Your task to perform on an android device: Go to battery settings Image 0: 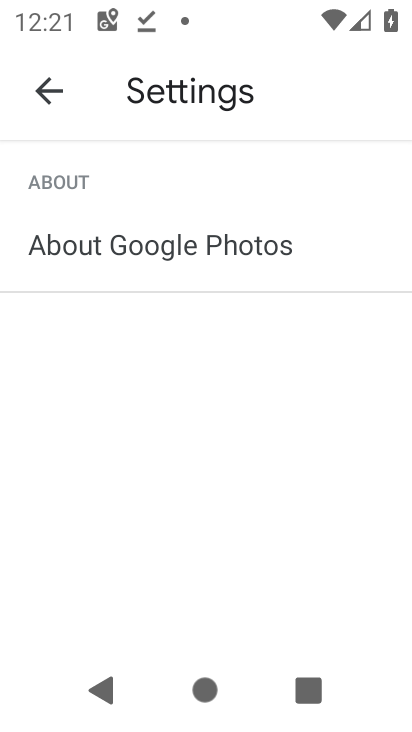
Step 0: press home button
Your task to perform on an android device: Go to battery settings Image 1: 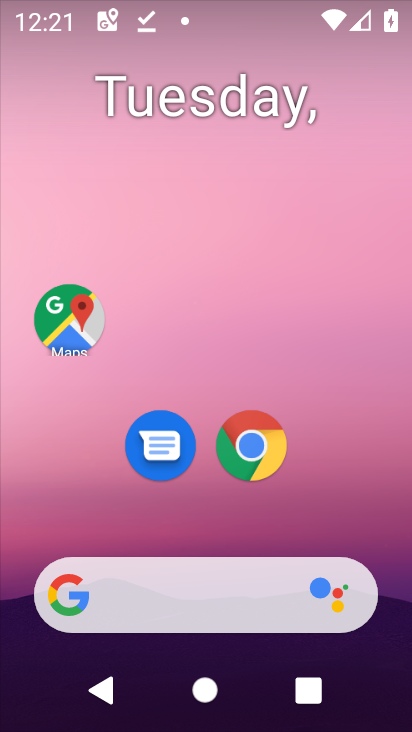
Step 1: drag from (320, 503) to (198, 15)
Your task to perform on an android device: Go to battery settings Image 2: 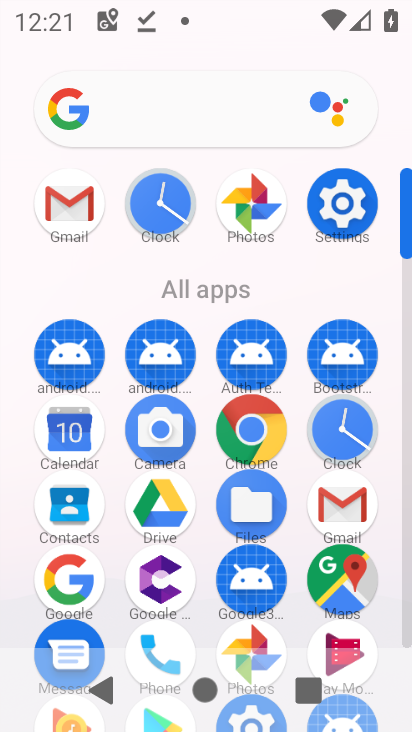
Step 2: click (338, 200)
Your task to perform on an android device: Go to battery settings Image 3: 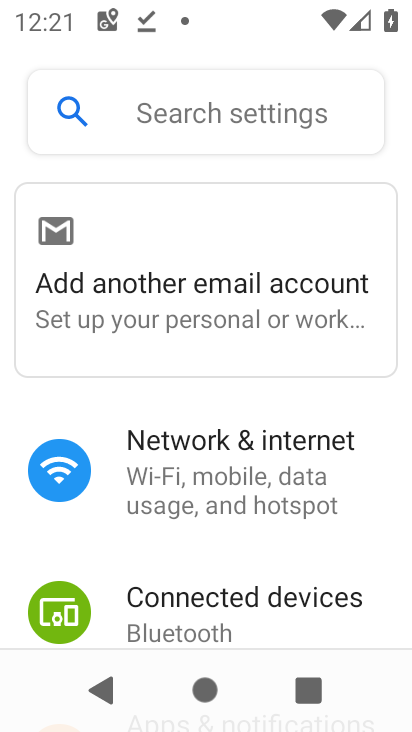
Step 3: drag from (264, 547) to (194, 108)
Your task to perform on an android device: Go to battery settings Image 4: 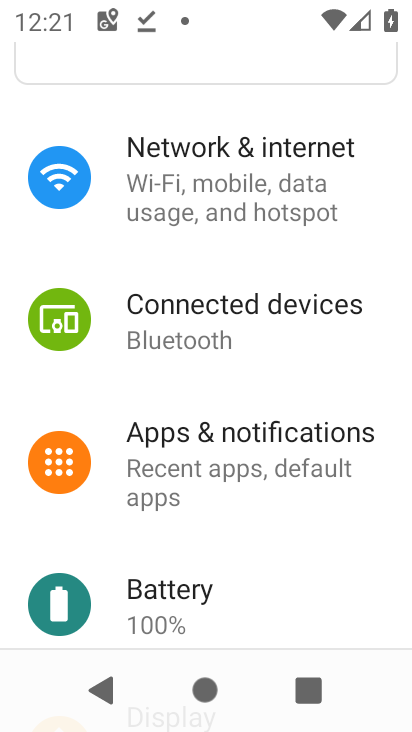
Step 4: drag from (224, 558) to (209, 189)
Your task to perform on an android device: Go to battery settings Image 5: 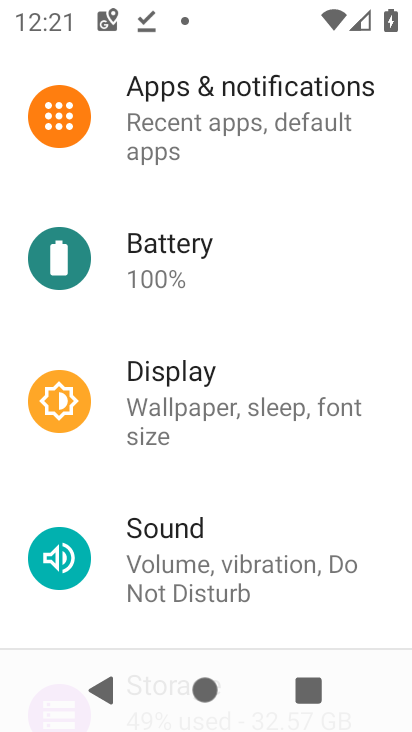
Step 5: click (149, 240)
Your task to perform on an android device: Go to battery settings Image 6: 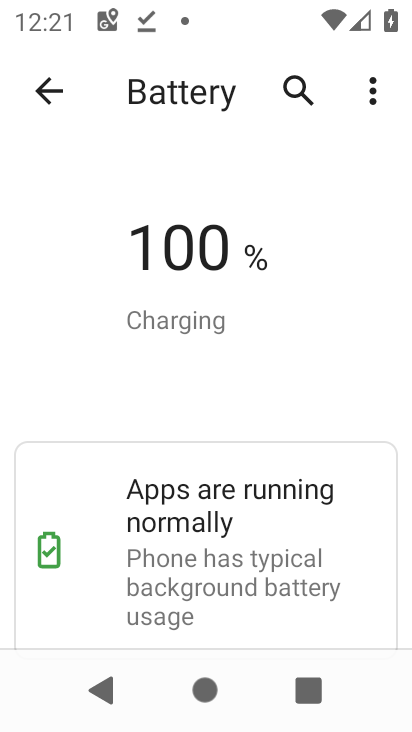
Step 6: task complete